Your task to perform on an android device: toggle location history Image 0: 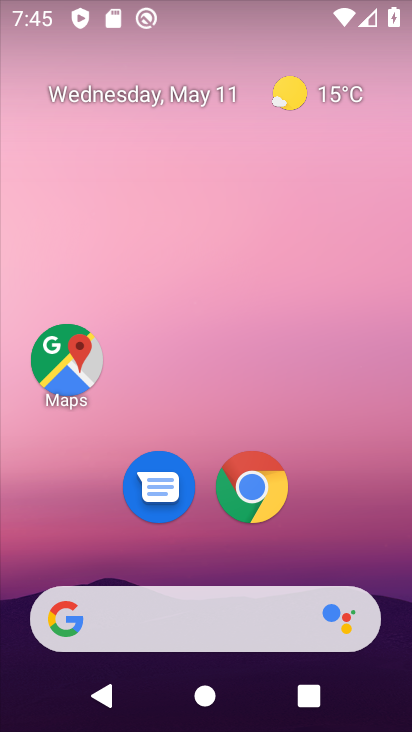
Step 0: drag from (286, 650) to (213, 227)
Your task to perform on an android device: toggle location history Image 1: 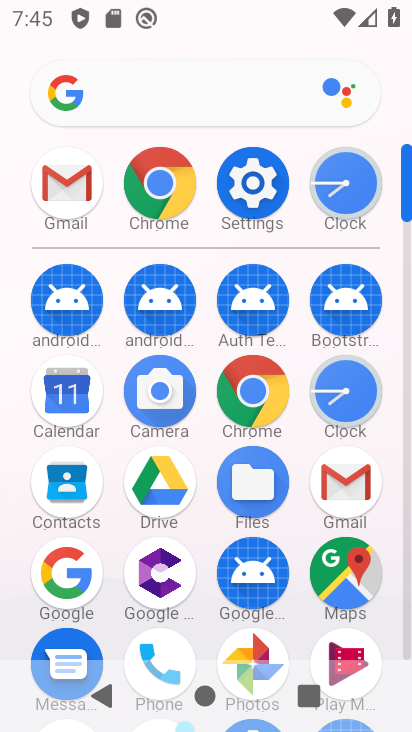
Step 1: click (238, 186)
Your task to perform on an android device: toggle location history Image 2: 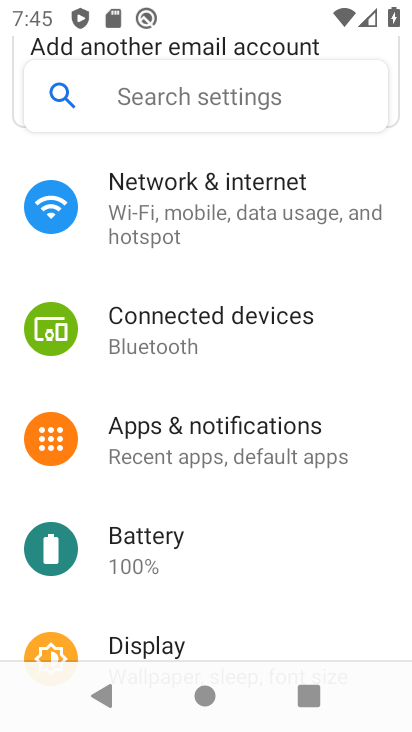
Step 2: click (206, 100)
Your task to perform on an android device: toggle location history Image 3: 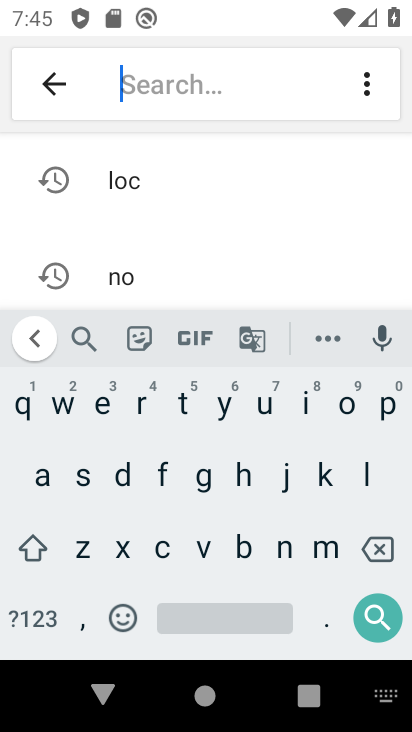
Step 3: click (132, 197)
Your task to perform on an android device: toggle location history Image 4: 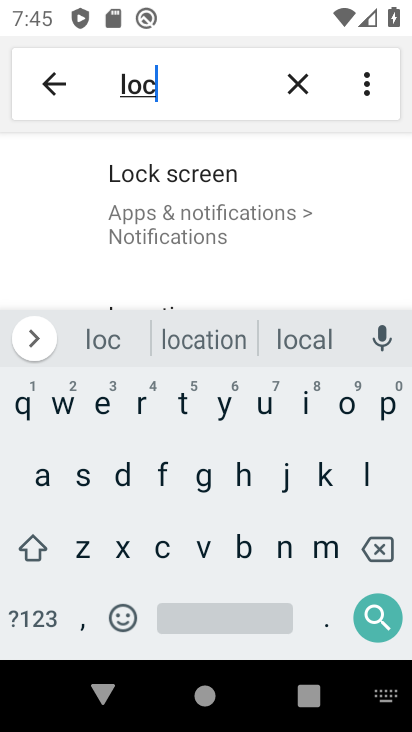
Step 4: drag from (155, 242) to (155, 177)
Your task to perform on an android device: toggle location history Image 5: 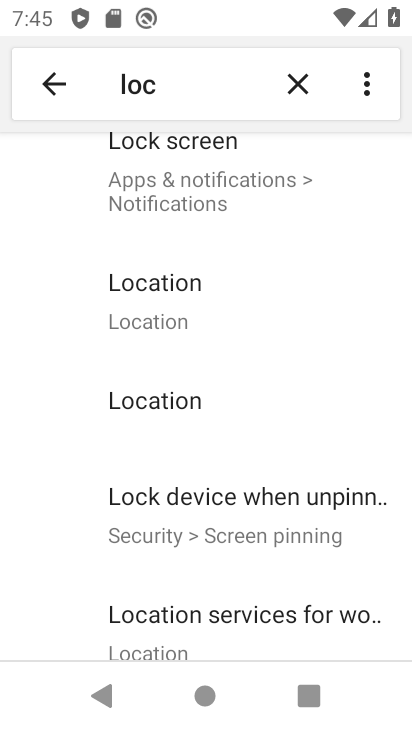
Step 5: click (164, 300)
Your task to perform on an android device: toggle location history Image 6: 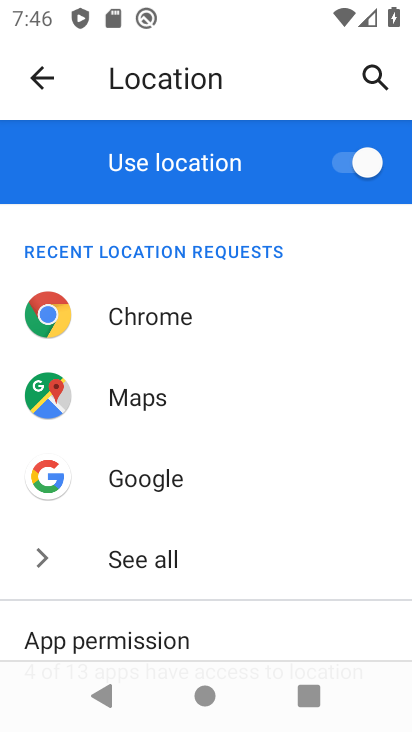
Step 6: drag from (247, 496) to (251, 317)
Your task to perform on an android device: toggle location history Image 7: 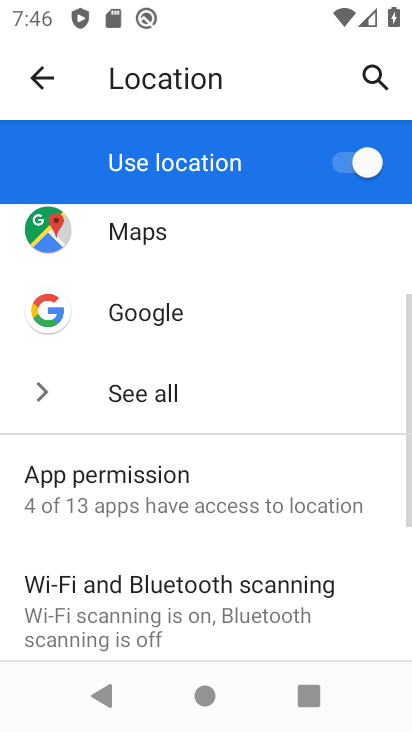
Step 7: drag from (232, 555) to (253, 363)
Your task to perform on an android device: toggle location history Image 8: 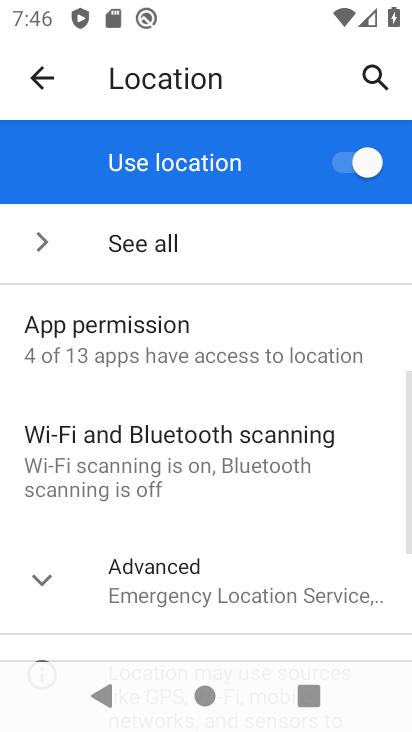
Step 8: click (184, 575)
Your task to perform on an android device: toggle location history Image 9: 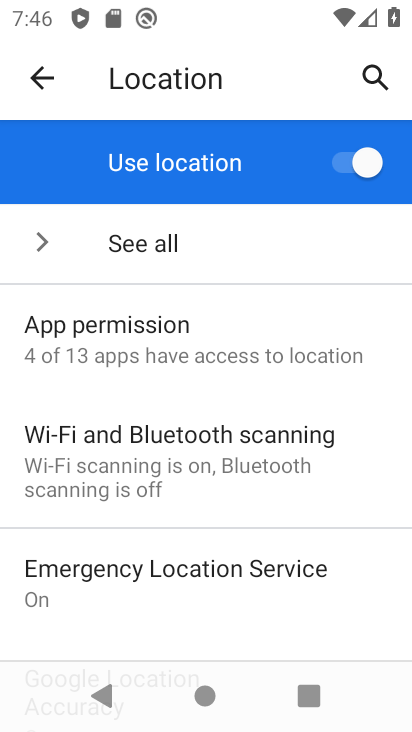
Step 9: drag from (169, 598) to (175, 409)
Your task to perform on an android device: toggle location history Image 10: 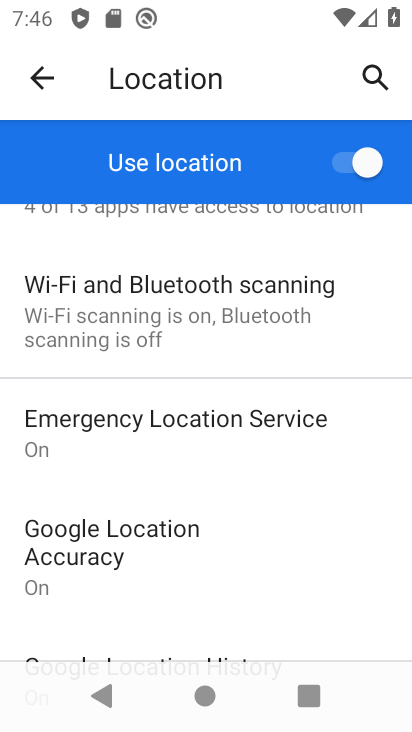
Step 10: drag from (186, 586) to (211, 352)
Your task to perform on an android device: toggle location history Image 11: 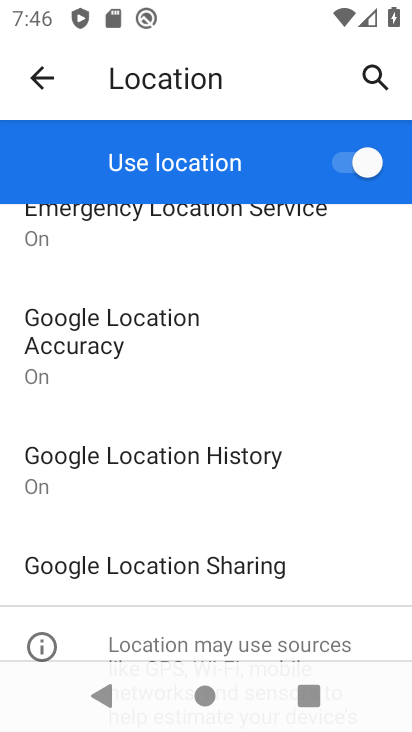
Step 11: click (156, 609)
Your task to perform on an android device: toggle location history Image 12: 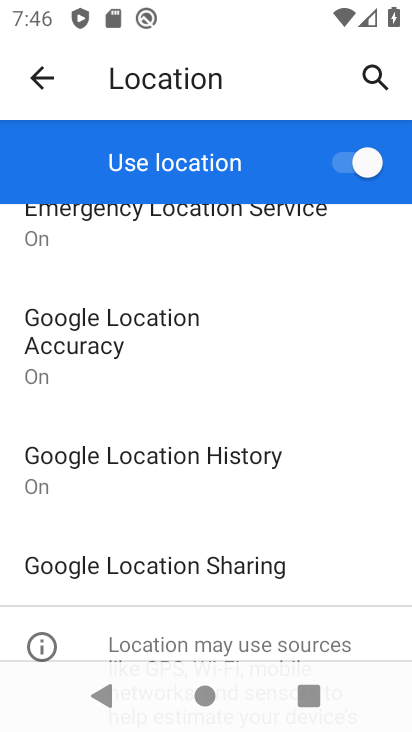
Step 12: click (154, 471)
Your task to perform on an android device: toggle location history Image 13: 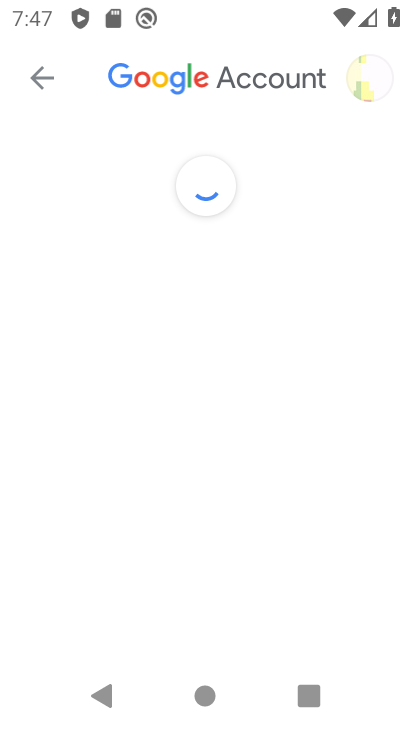
Step 13: task complete